Your task to perform on an android device: Add "jbl flip 4" to the cart on amazon Image 0: 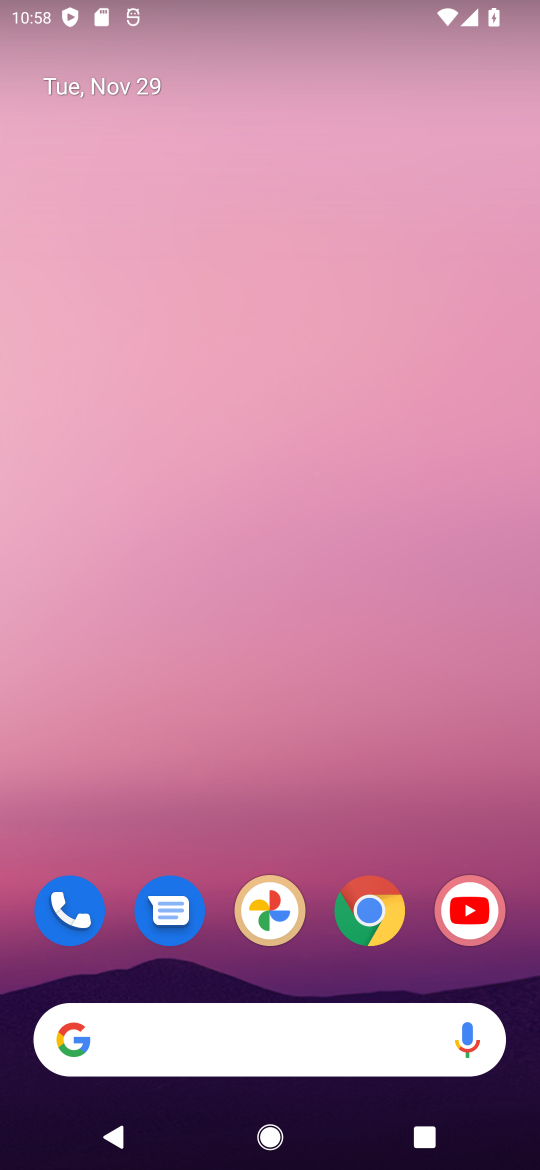
Step 0: click (364, 915)
Your task to perform on an android device: Add "jbl flip 4" to the cart on amazon Image 1: 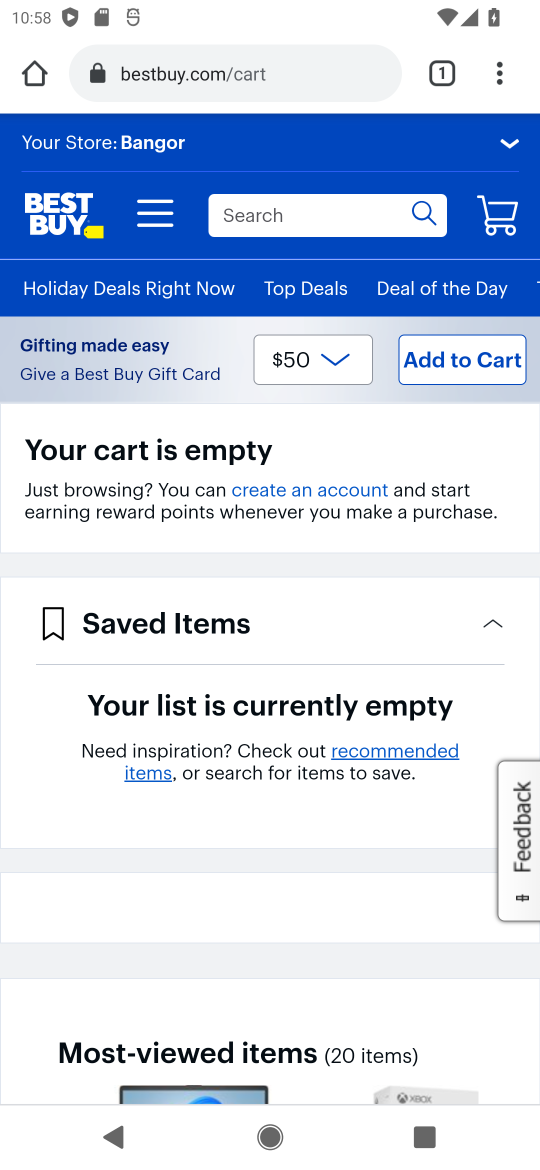
Step 1: click (190, 74)
Your task to perform on an android device: Add "jbl flip 4" to the cart on amazon Image 2: 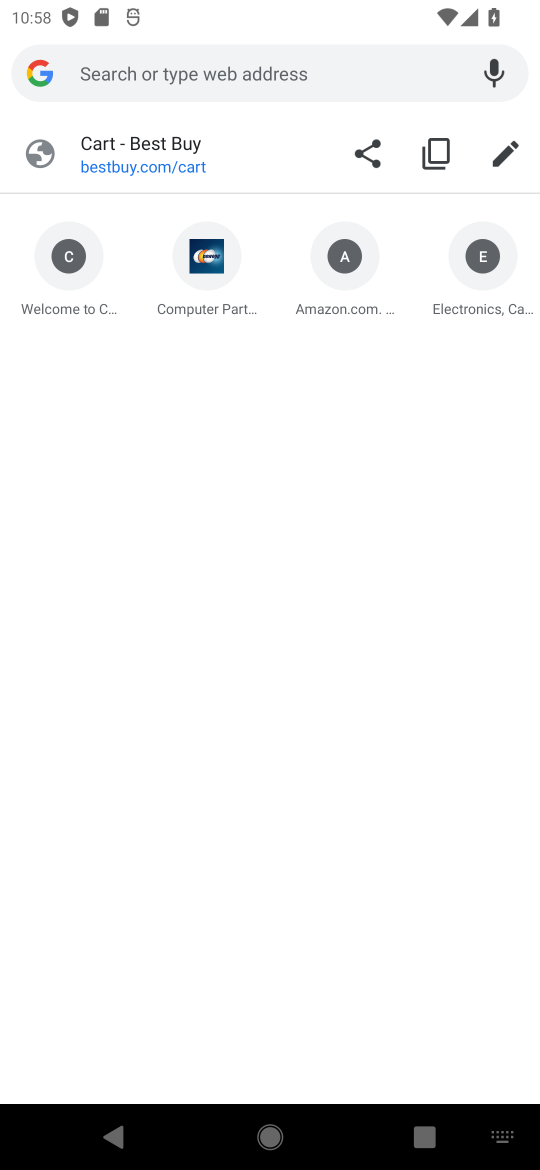
Step 2: click (339, 256)
Your task to perform on an android device: Add "jbl flip 4" to the cart on amazon Image 3: 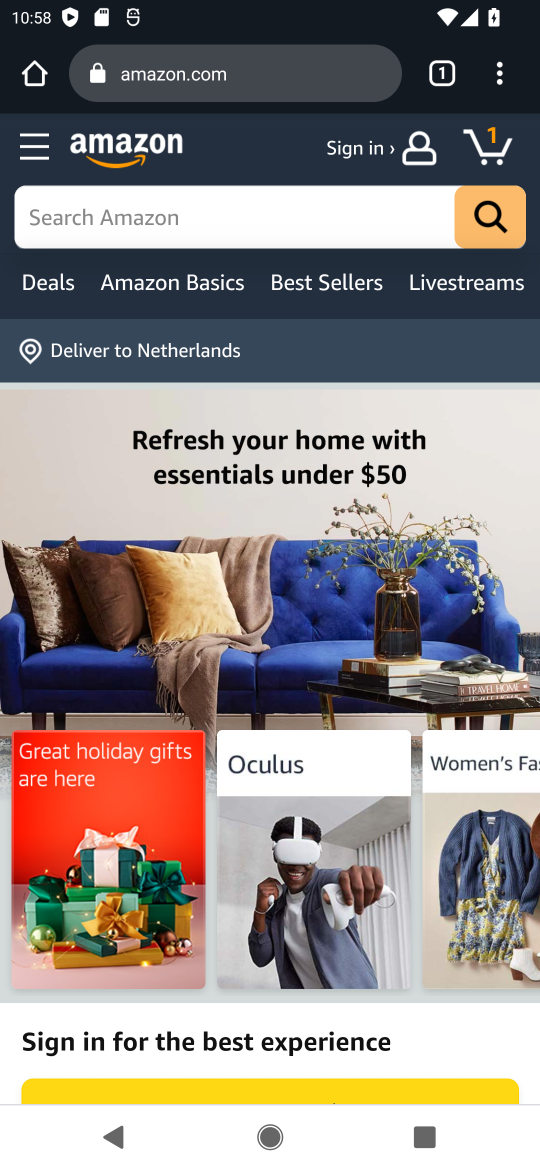
Step 3: click (115, 222)
Your task to perform on an android device: Add "jbl flip 4" to the cart on amazon Image 4: 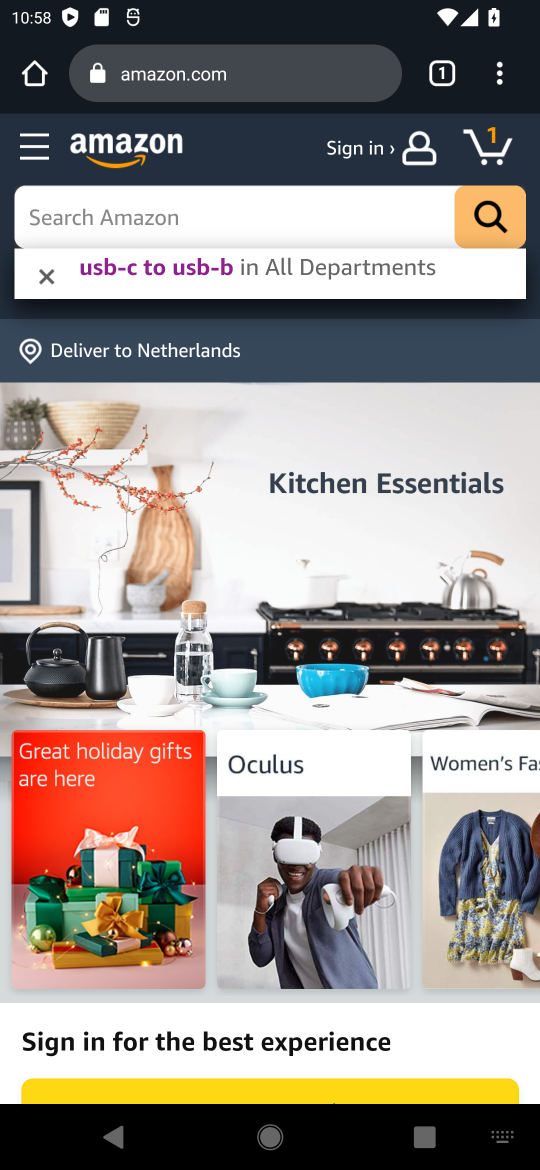
Step 4: type "jbl flip 4"
Your task to perform on an android device: Add "jbl flip 4" to the cart on amazon Image 5: 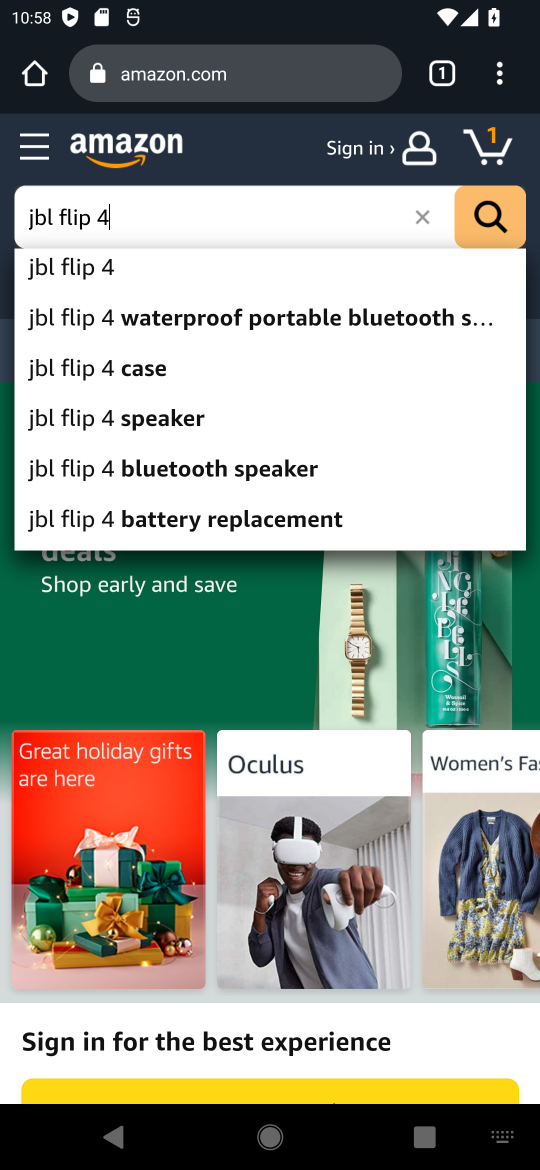
Step 5: click (79, 264)
Your task to perform on an android device: Add "jbl flip 4" to the cart on amazon Image 6: 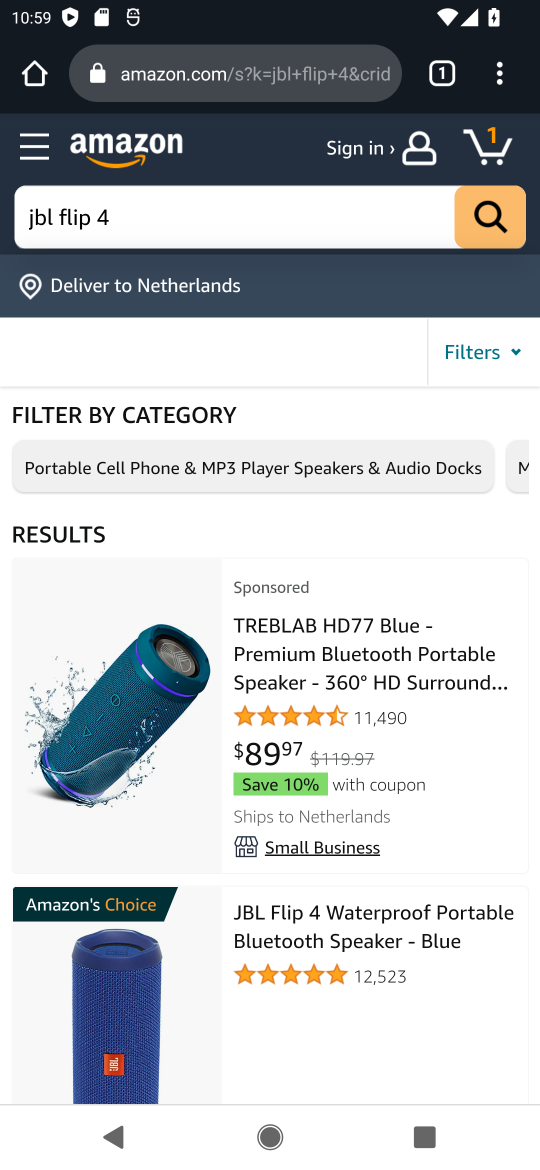
Step 6: drag from (317, 830) to (283, 409)
Your task to perform on an android device: Add "jbl flip 4" to the cart on amazon Image 7: 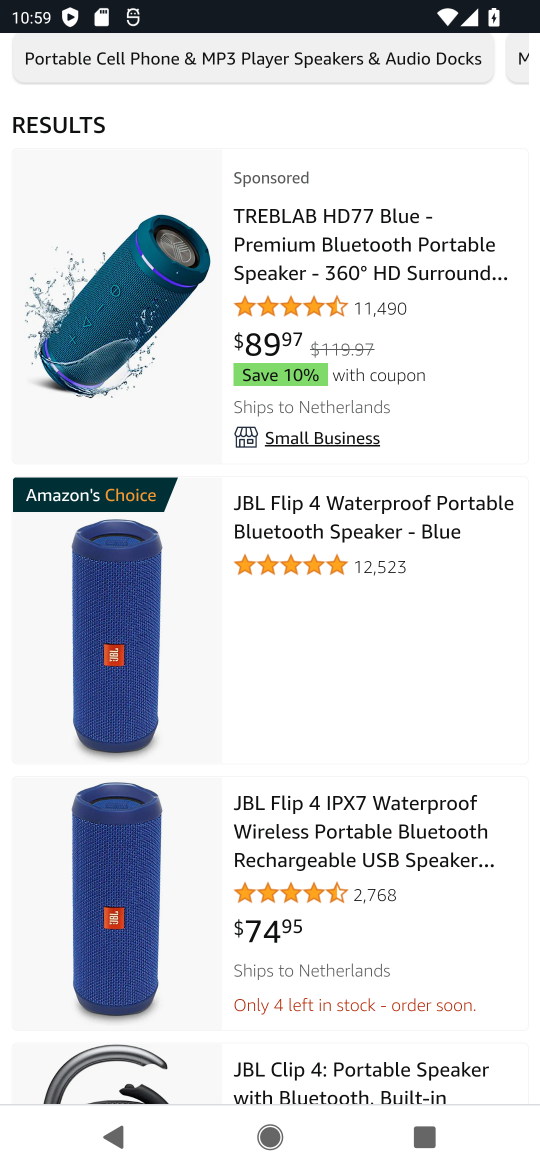
Step 7: click (293, 842)
Your task to perform on an android device: Add "jbl flip 4" to the cart on amazon Image 8: 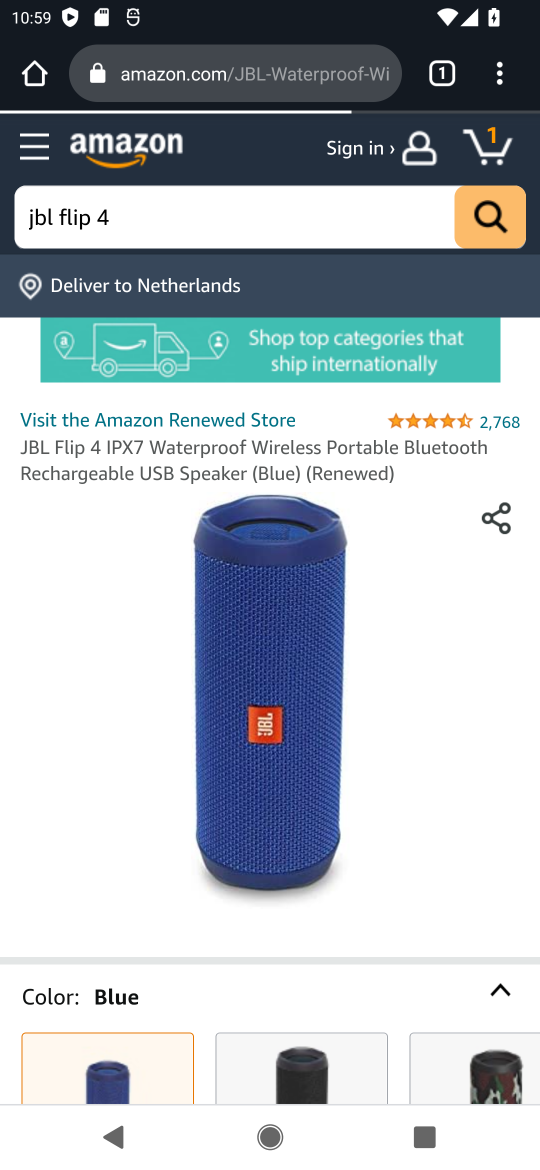
Step 8: drag from (297, 894) to (271, 197)
Your task to perform on an android device: Add "jbl flip 4" to the cart on amazon Image 9: 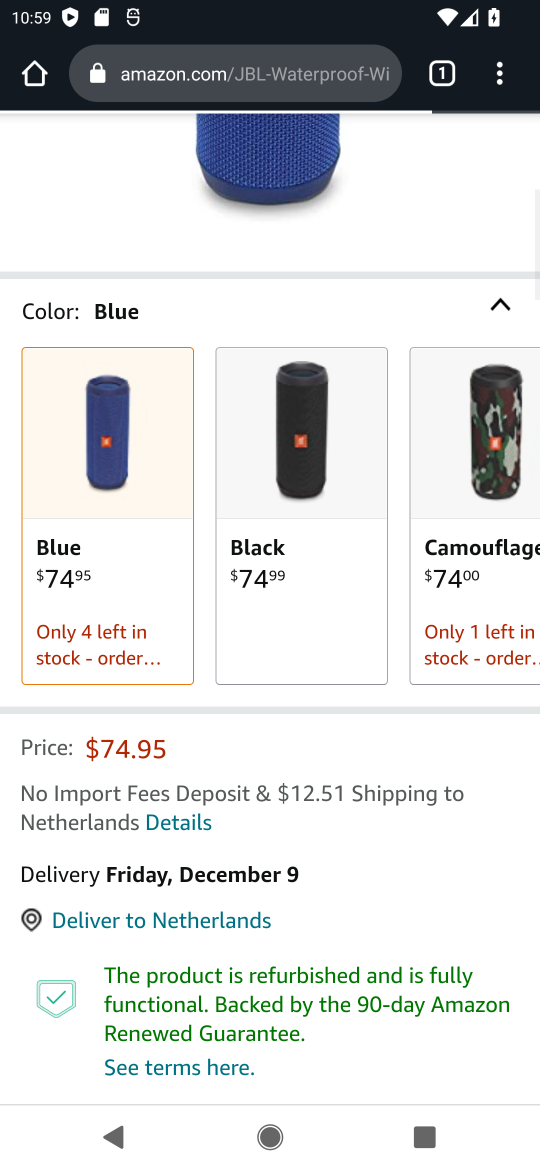
Step 9: drag from (296, 790) to (238, 215)
Your task to perform on an android device: Add "jbl flip 4" to the cart on amazon Image 10: 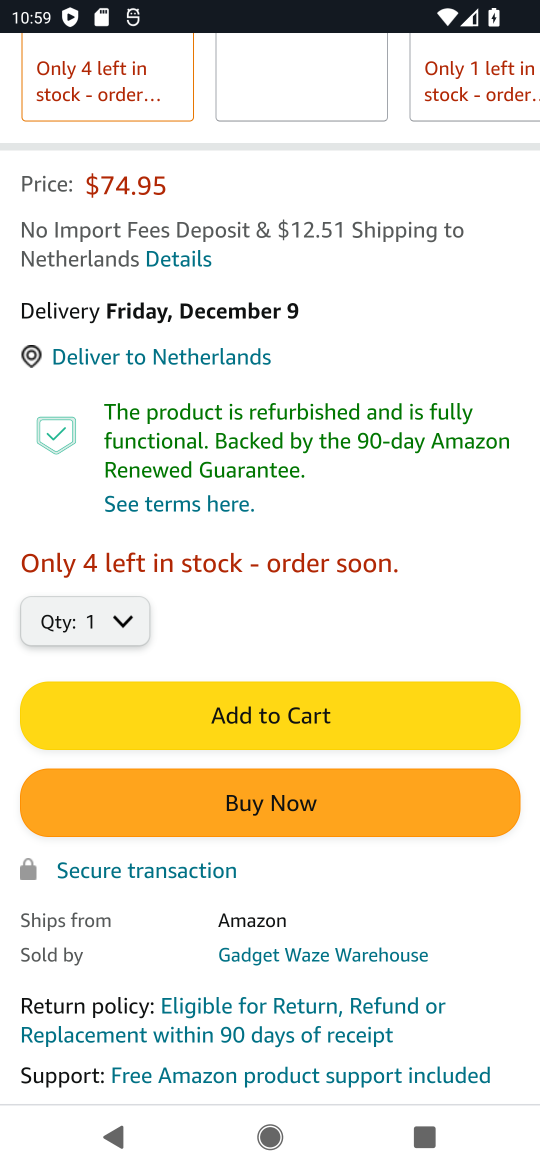
Step 10: click (252, 698)
Your task to perform on an android device: Add "jbl flip 4" to the cart on amazon Image 11: 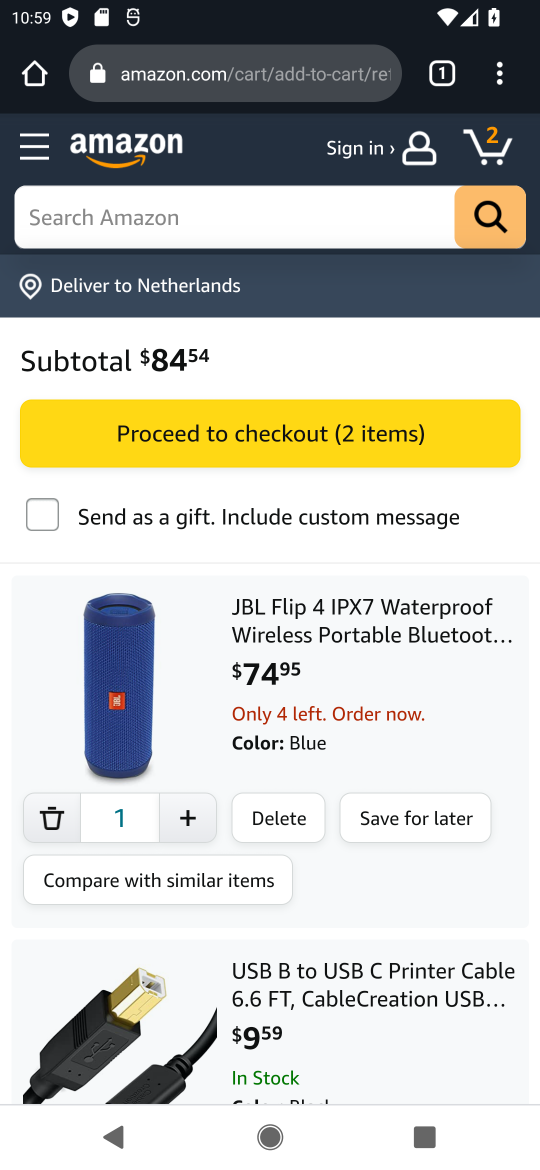
Step 11: task complete